Your task to perform on an android device: change alarm snooze length Image 0: 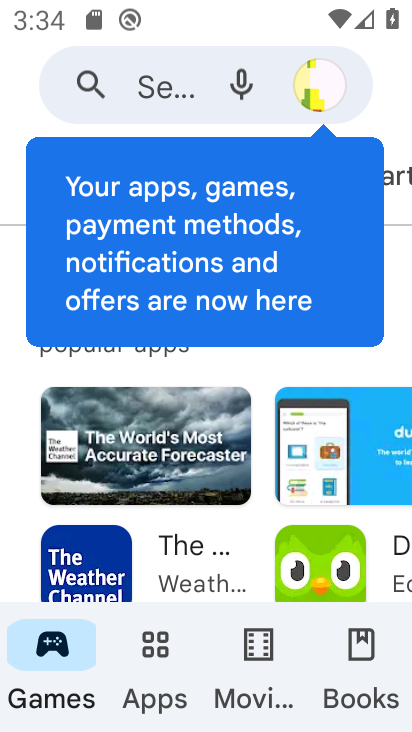
Step 0: press home button
Your task to perform on an android device: change alarm snooze length Image 1: 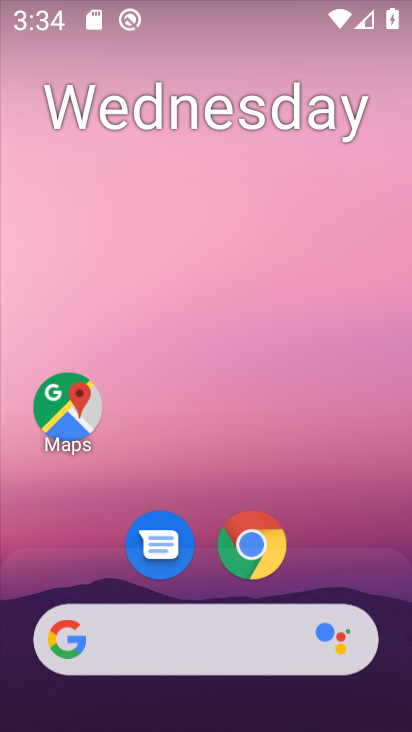
Step 1: drag from (368, 59) to (377, 22)
Your task to perform on an android device: change alarm snooze length Image 2: 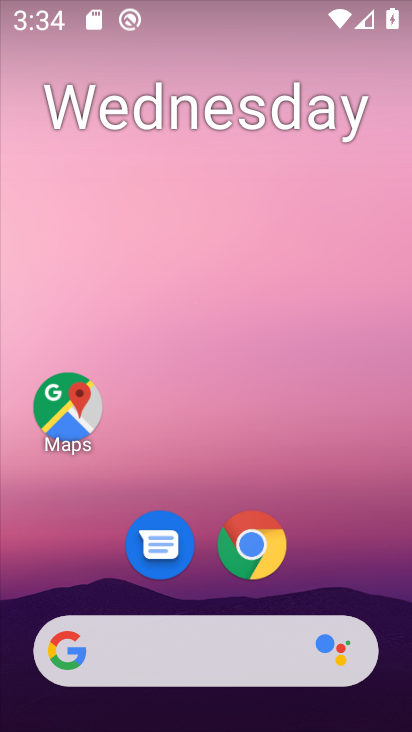
Step 2: drag from (194, 592) to (196, 46)
Your task to perform on an android device: change alarm snooze length Image 3: 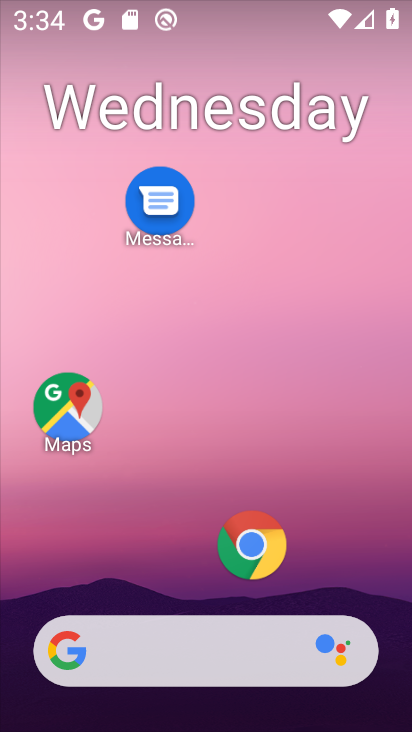
Step 3: drag from (351, 562) to (336, 27)
Your task to perform on an android device: change alarm snooze length Image 4: 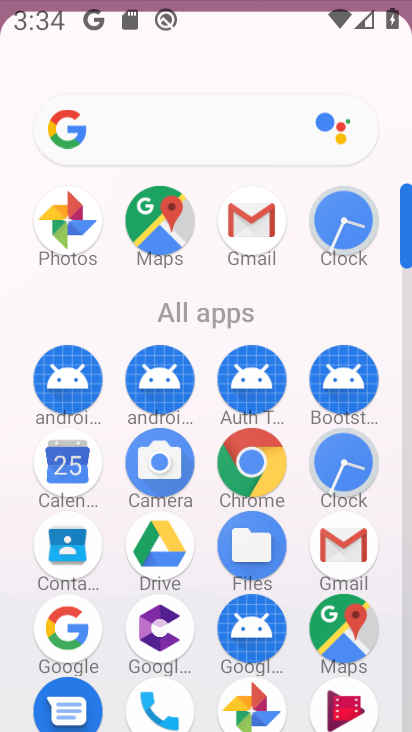
Step 4: click (336, 27)
Your task to perform on an android device: change alarm snooze length Image 5: 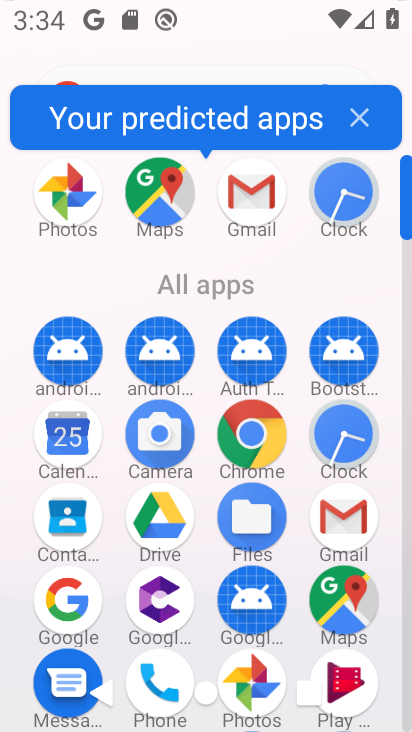
Step 5: drag from (290, 595) to (273, 279)
Your task to perform on an android device: change alarm snooze length Image 6: 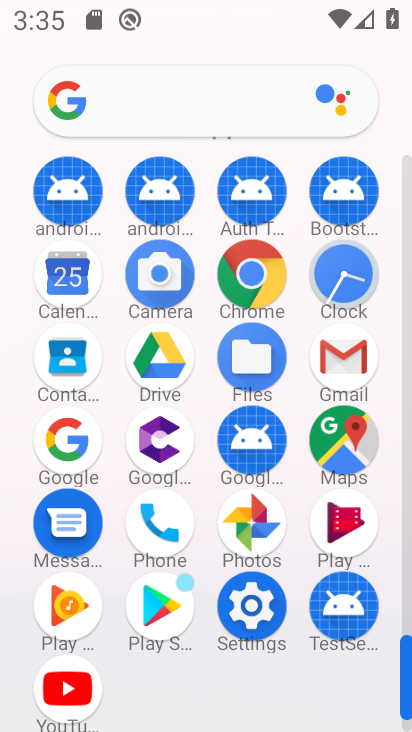
Step 6: click (343, 269)
Your task to perform on an android device: change alarm snooze length Image 7: 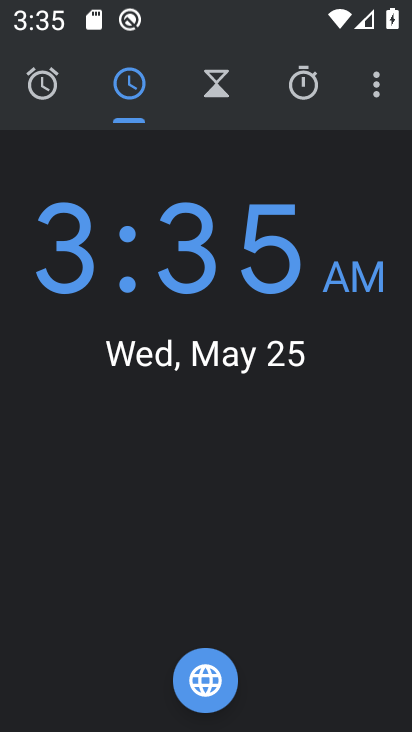
Step 7: click (381, 81)
Your task to perform on an android device: change alarm snooze length Image 8: 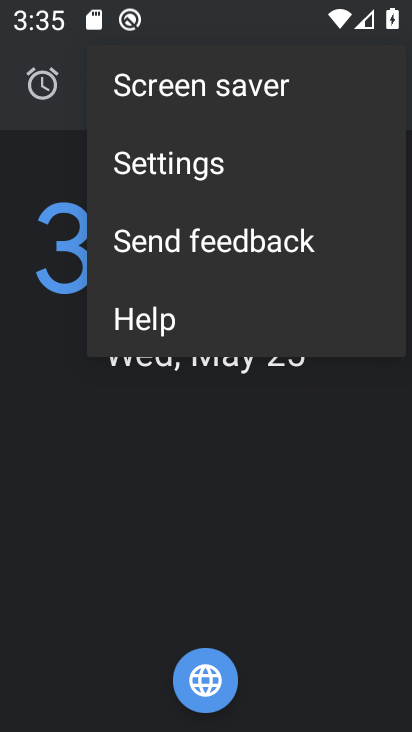
Step 8: click (187, 157)
Your task to perform on an android device: change alarm snooze length Image 9: 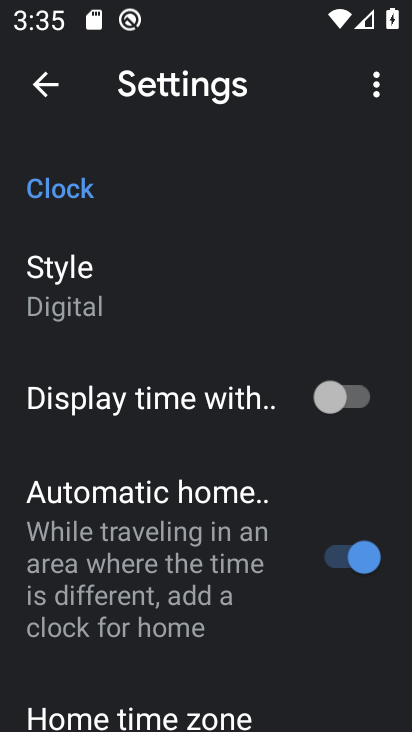
Step 9: drag from (177, 667) to (223, 195)
Your task to perform on an android device: change alarm snooze length Image 10: 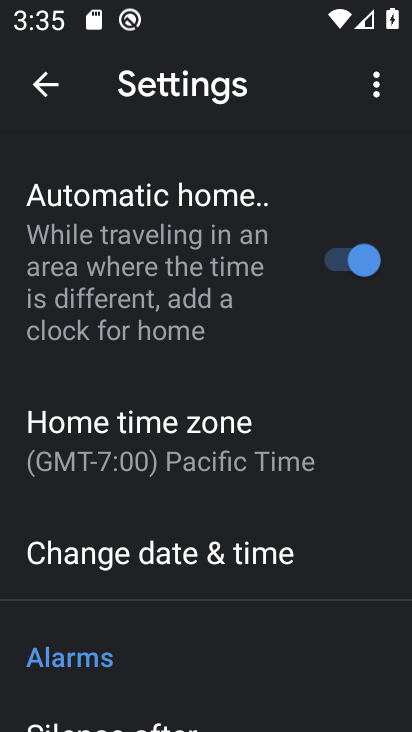
Step 10: drag from (206, 624) to (198, 152)
Your task to perform on an android device: change alarm snooze length Image 11: 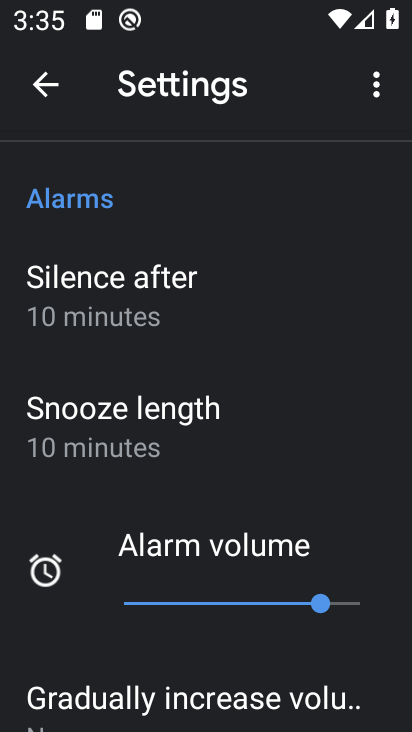
Step 11: click (141, 419)
Your task to perform on an android device: change alarm snooze length Image 12: 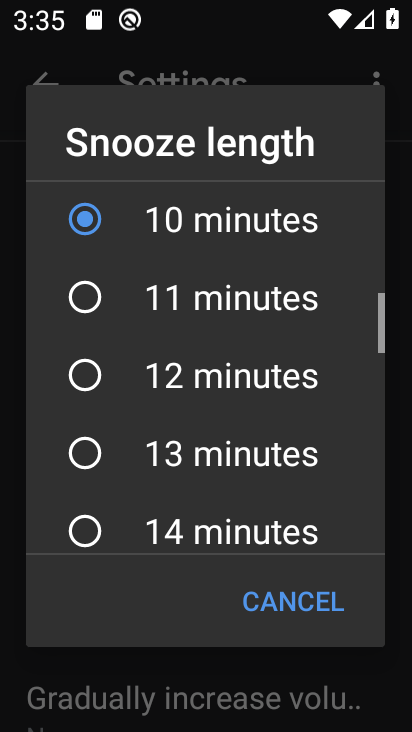
Step 12: drag from (194, 207) to (181, 495)
Your task to perform on an android device: change alarm snooze length Image 13: 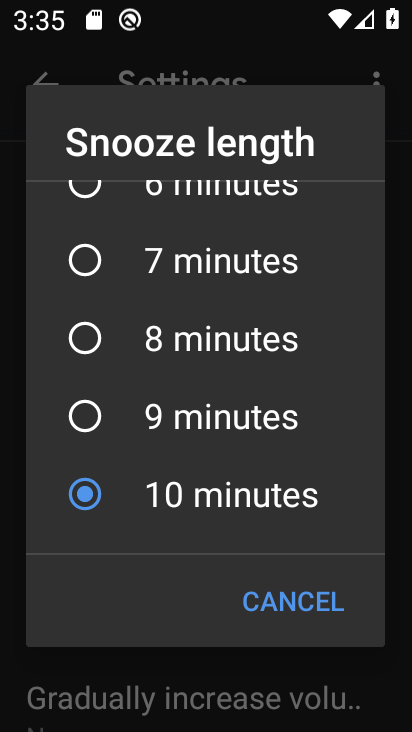
Step 13: click (91, 267)
Your task to perform on an android device: change alarm snooze length Image 14: 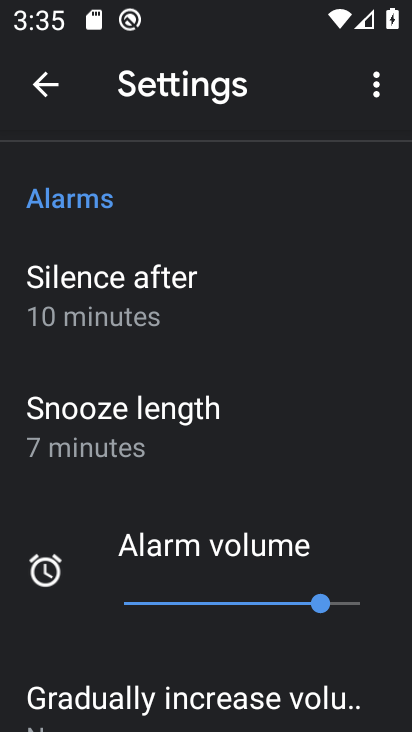
Step 14: task complete